Your task to perform on an android device: Open Google Chrome Image 0: 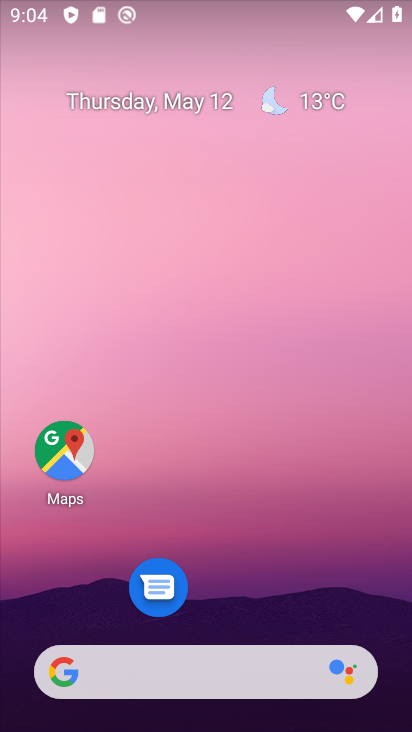
Step 0: drag from (219, 629) to (227, 50)
Your task to perform on an android device: Open Google Chrome Image 1: 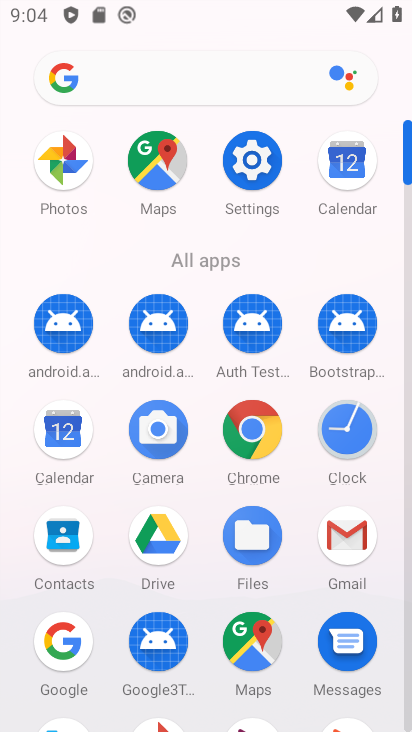
Step 1: click (242, 422)
Your task to perform on an android device: Open Google Chrome Image 2: 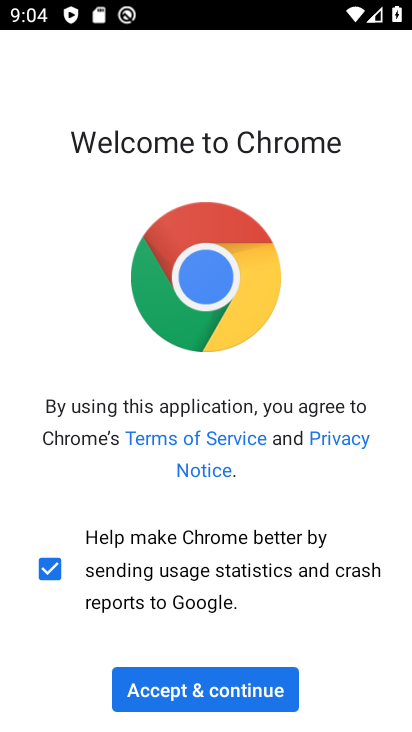
Step 2: click (199, 695)
Your task to perform on an android device: Open Google Chrome Image 3: 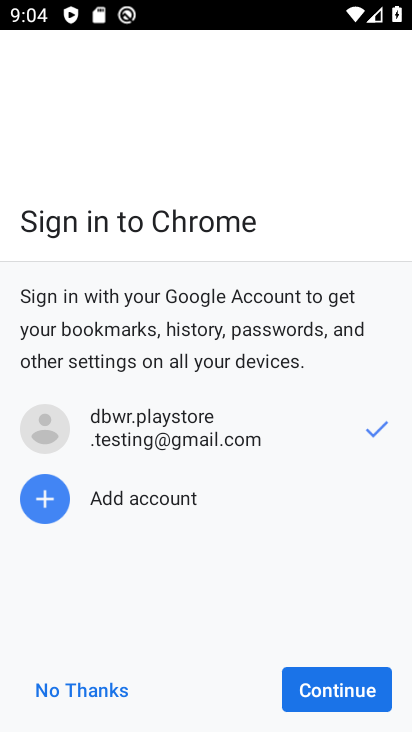
Step 3: click (367, 702)
Your task to perform on an android device: Open Google Chrome Image 4: 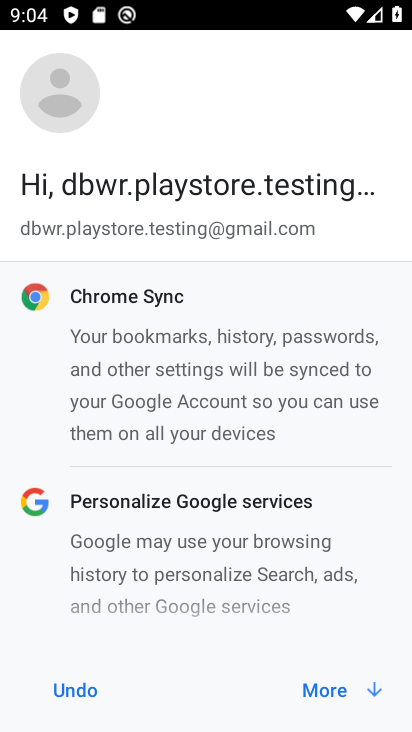
Step 4: click (361, 681)
Your task to perform on an android device: Open Google Chrome Image 5: 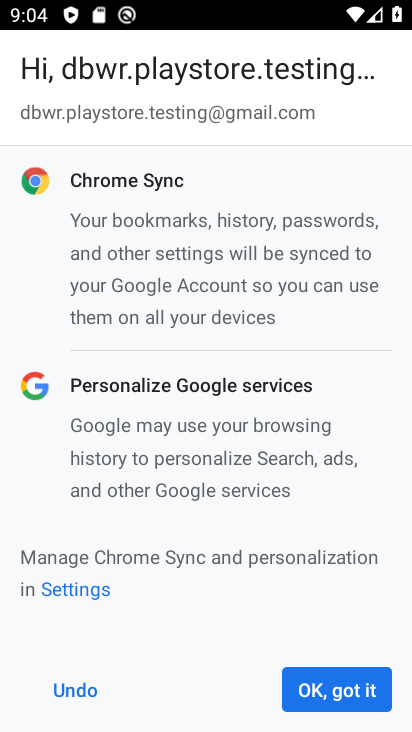
Step 5: click (361, 682)
Your task to perform on an android device: Open Google Chrome Image 6: 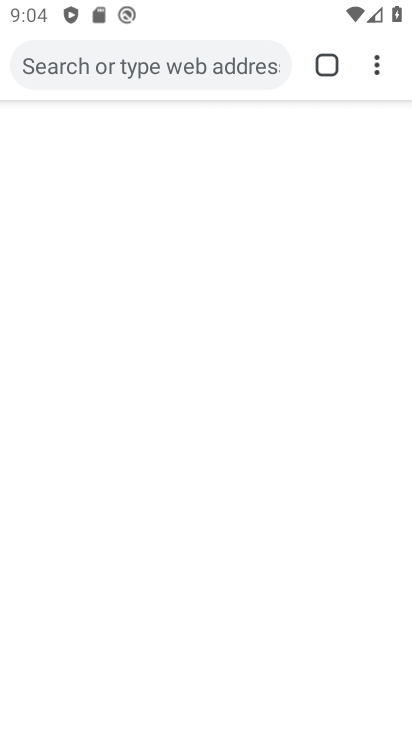
Step 6: task complete